Your task to perform on an android device: Go to Reddit.com Image 0: 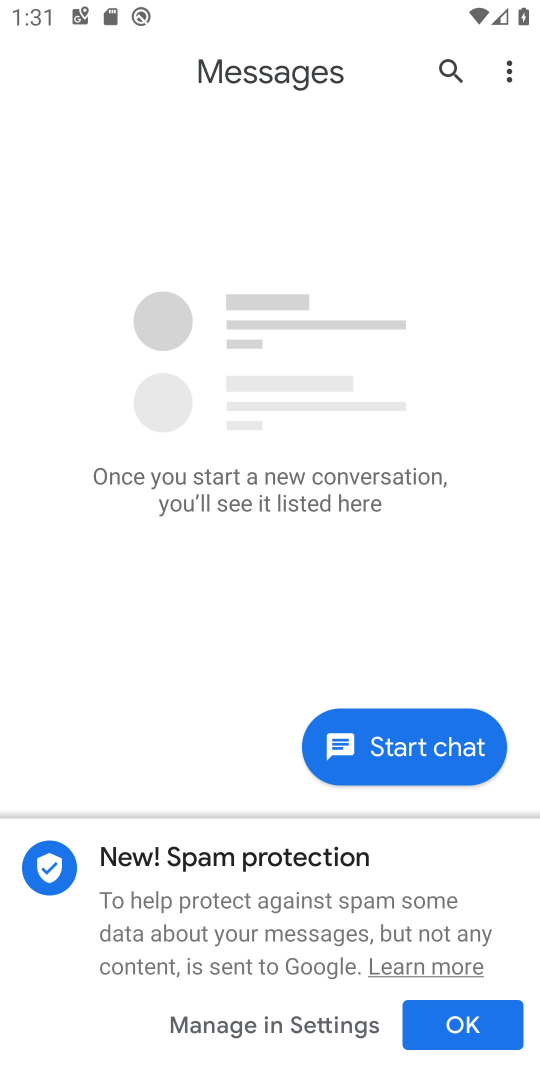
Step 0: press home button
Your task to perform on an android device: Go to Reddit.com Image 1: 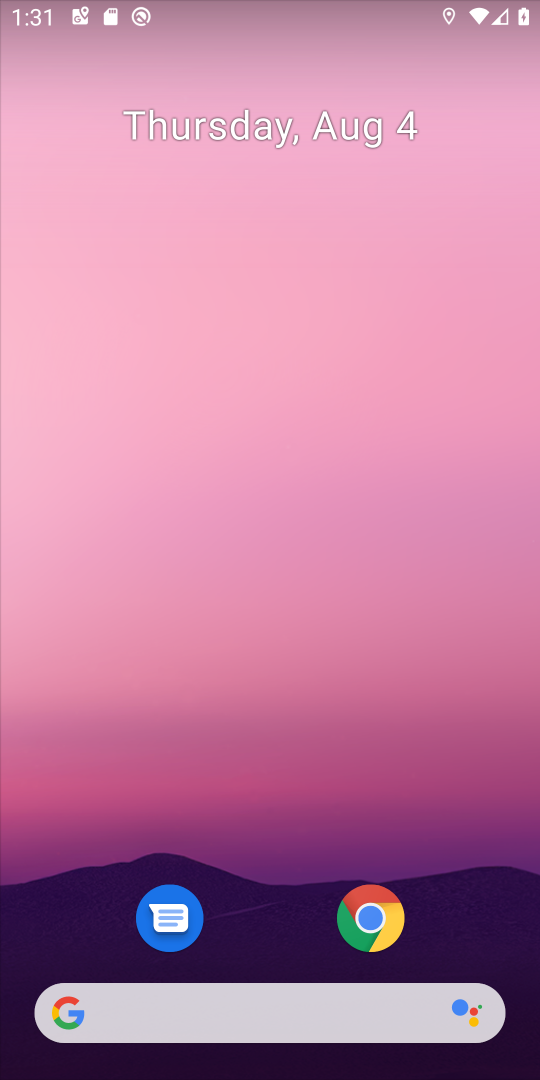
Step 1: click (350, 914)
Your task to perform on an android device: Go to Reddit.com Image 2: 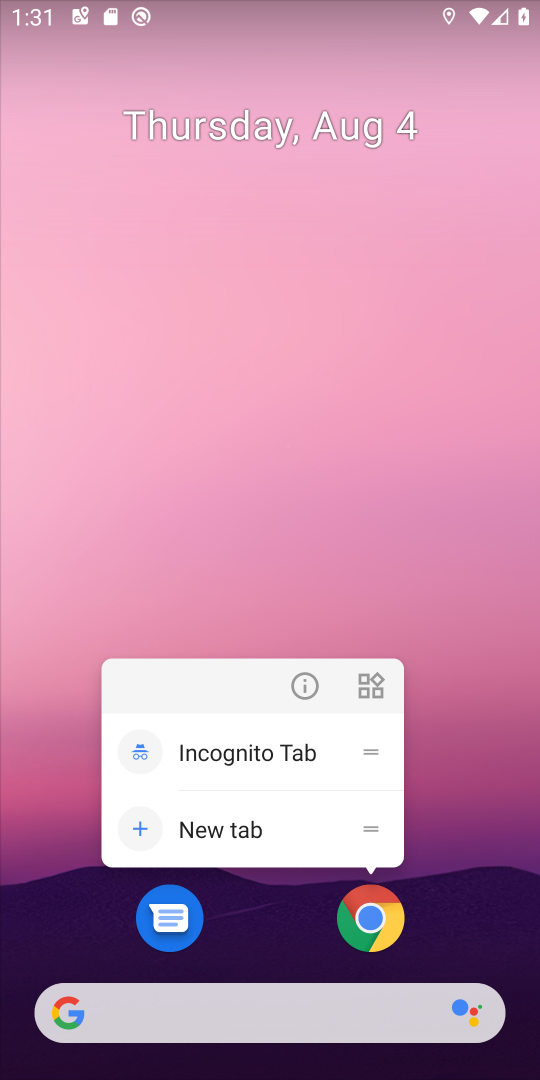
Step 2: click (355, 914)
Your task to perform on an android device: Go to Reddit.com Image 3: 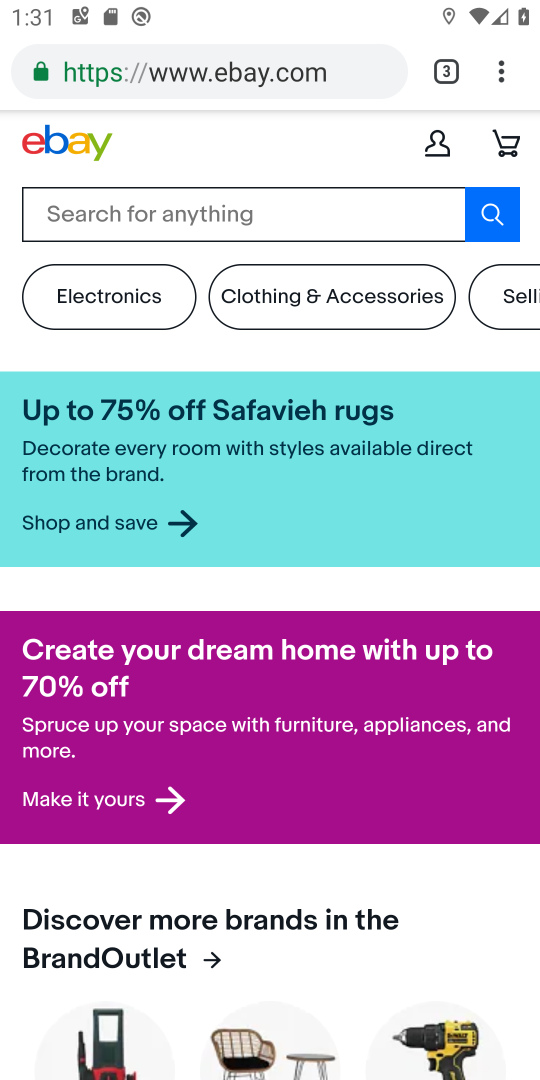
Step 3: click (444, 79)
Your task to perform on an android device: Go to Reddit.com Image 4: 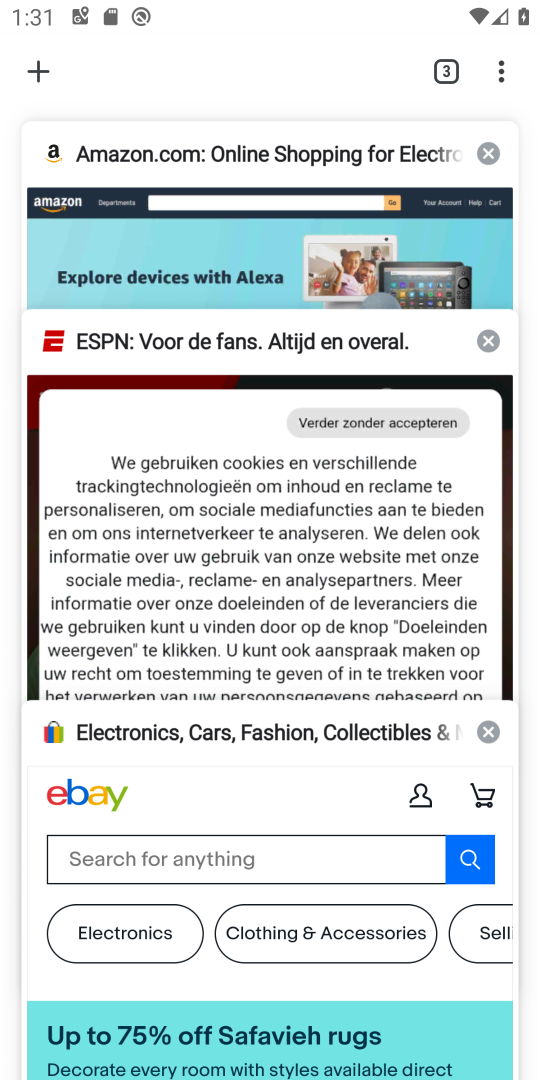
Step 4: click (31, 75)
Your task to perform on an android device: Go to Reddit.com Image 5: 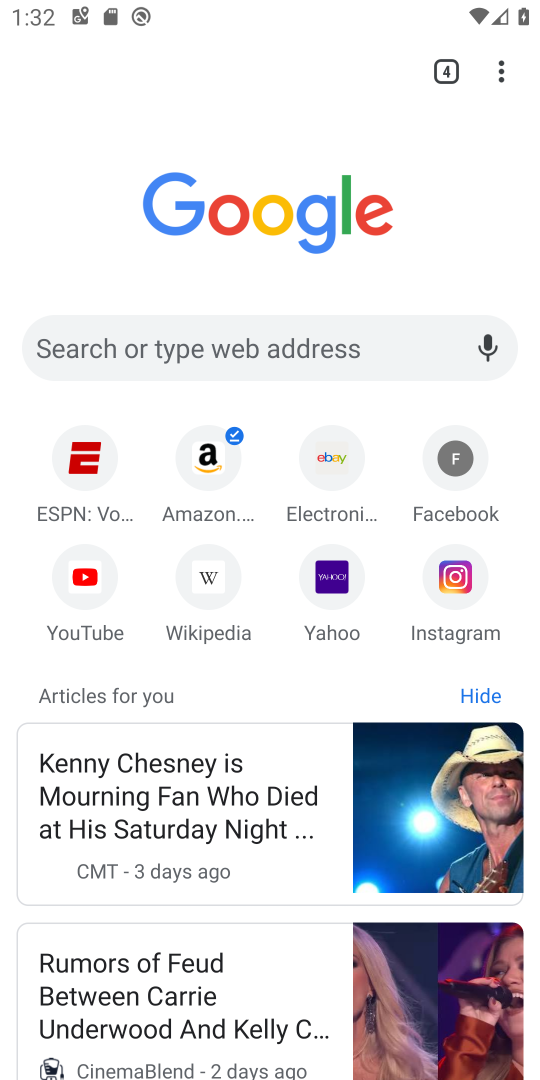
Step 5: click (275, 358)
Your task to perform on an android device: Go to Reddit.com Image 6: 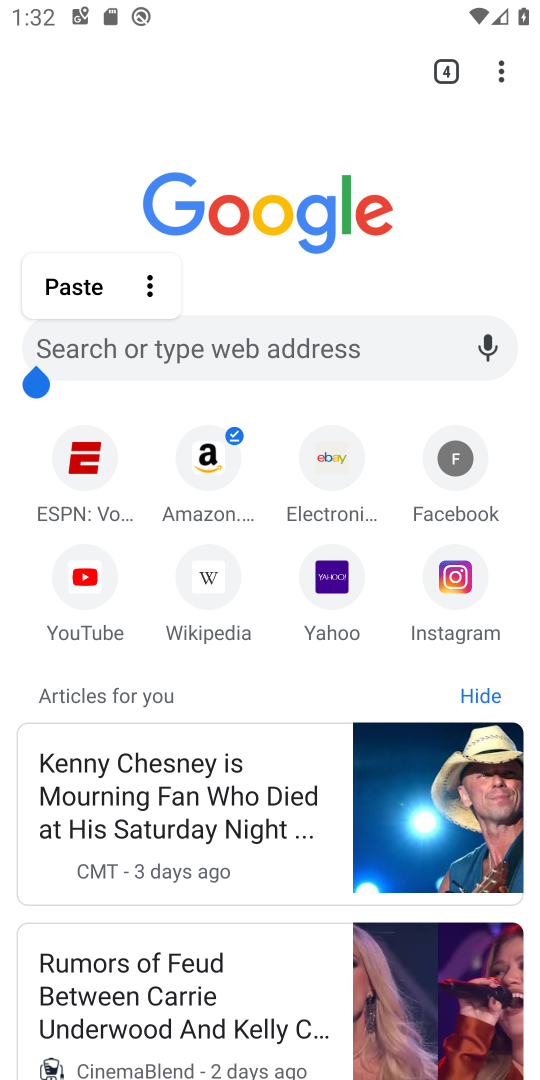
Step 6: click (191, 353)
Your task to perform on an android device: Go to Reddit.com Image 7: 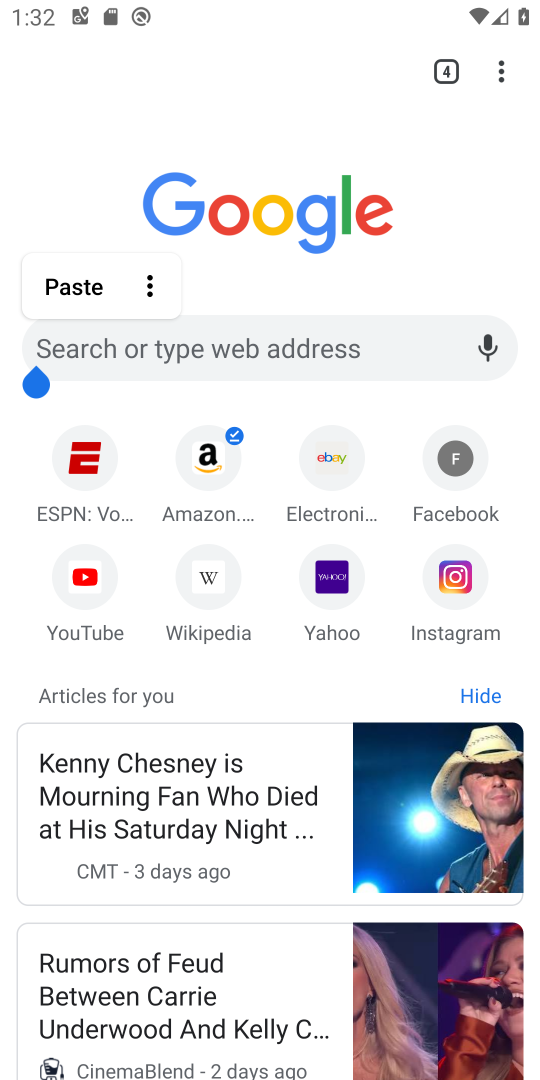
Step 7: click (191, 353)
Your task to perform on an android device: Go to Reddit.com Image 8: 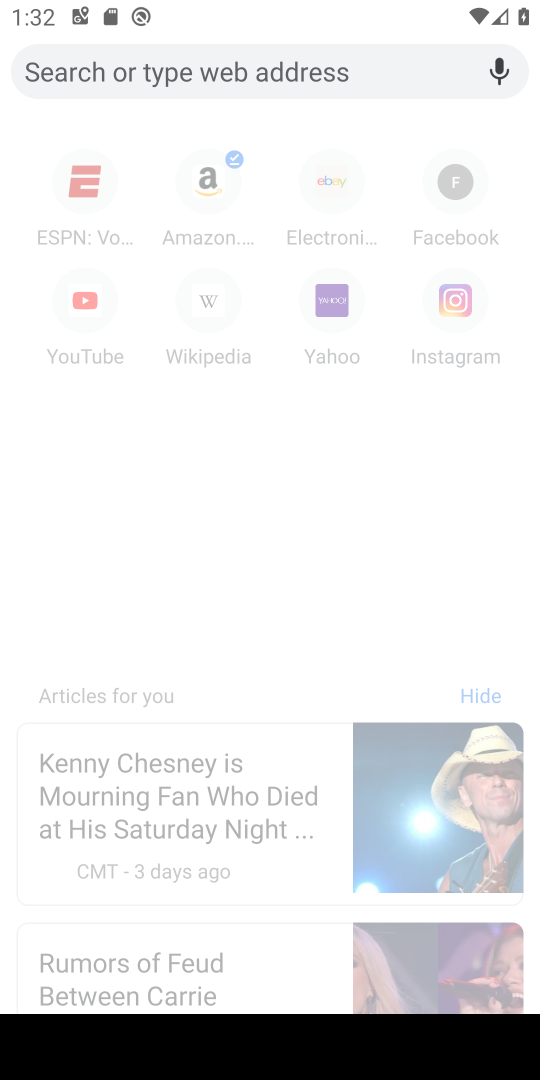
Step 8: type "Reddit.com"
Your task to perform on an android device: Go to Reddit.com Image 9: 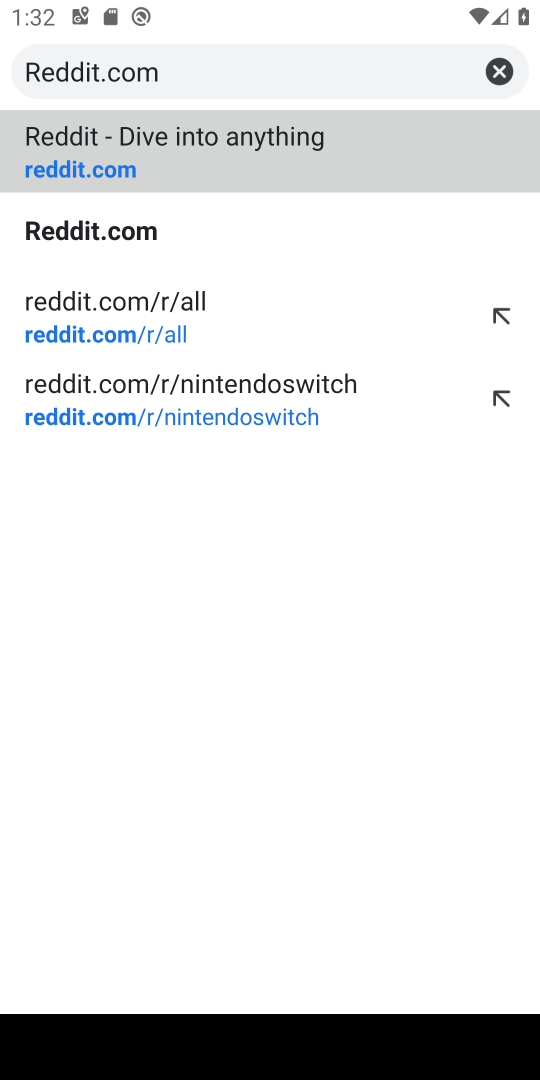
Step 9: click (297, 159)
Your task to perform on an android device: Go to Reddit.com Image 10: 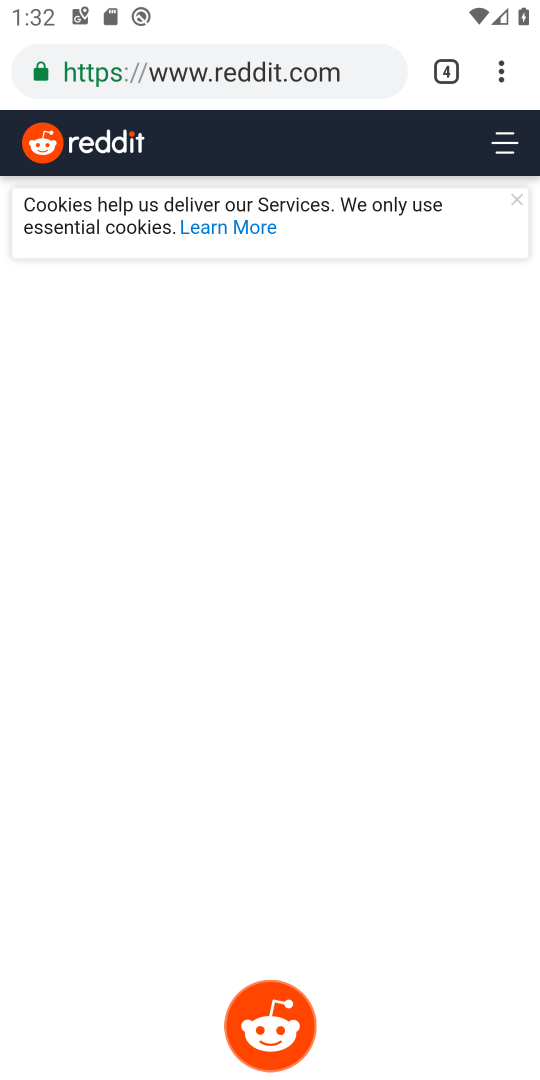
Step 10: task complete